Your task to perform on an android device: View the shopping cart on costco.com. Search for rayovac triple a on costco.com, select the first entry, add it to the cart, then select checkout. Image 0: 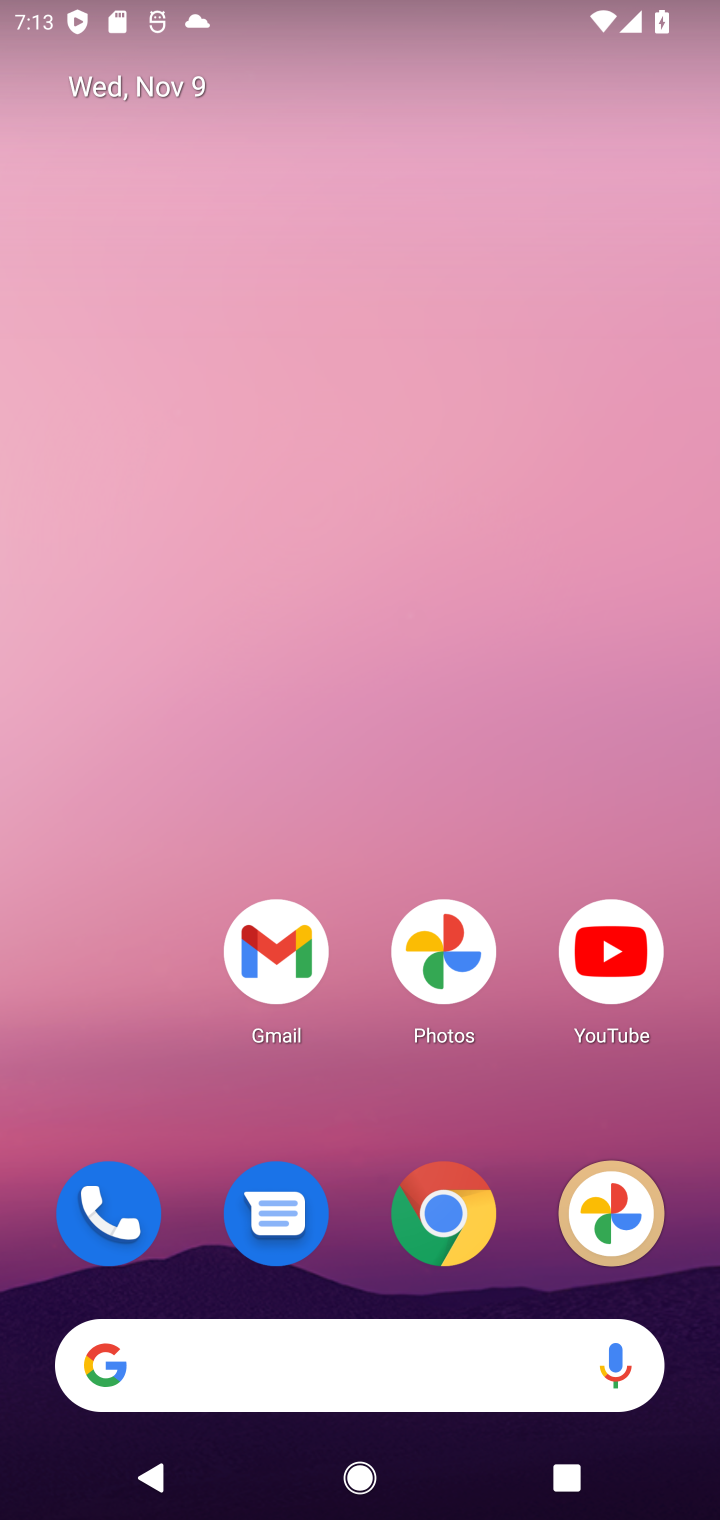
Step 0: click (444, 1241)
Your task to perform on an android device: View the shopping cart on costco.com. Search for rayovac triple a on costco.com, select the first entry, add it to the cart, then select checkout. Image 1: 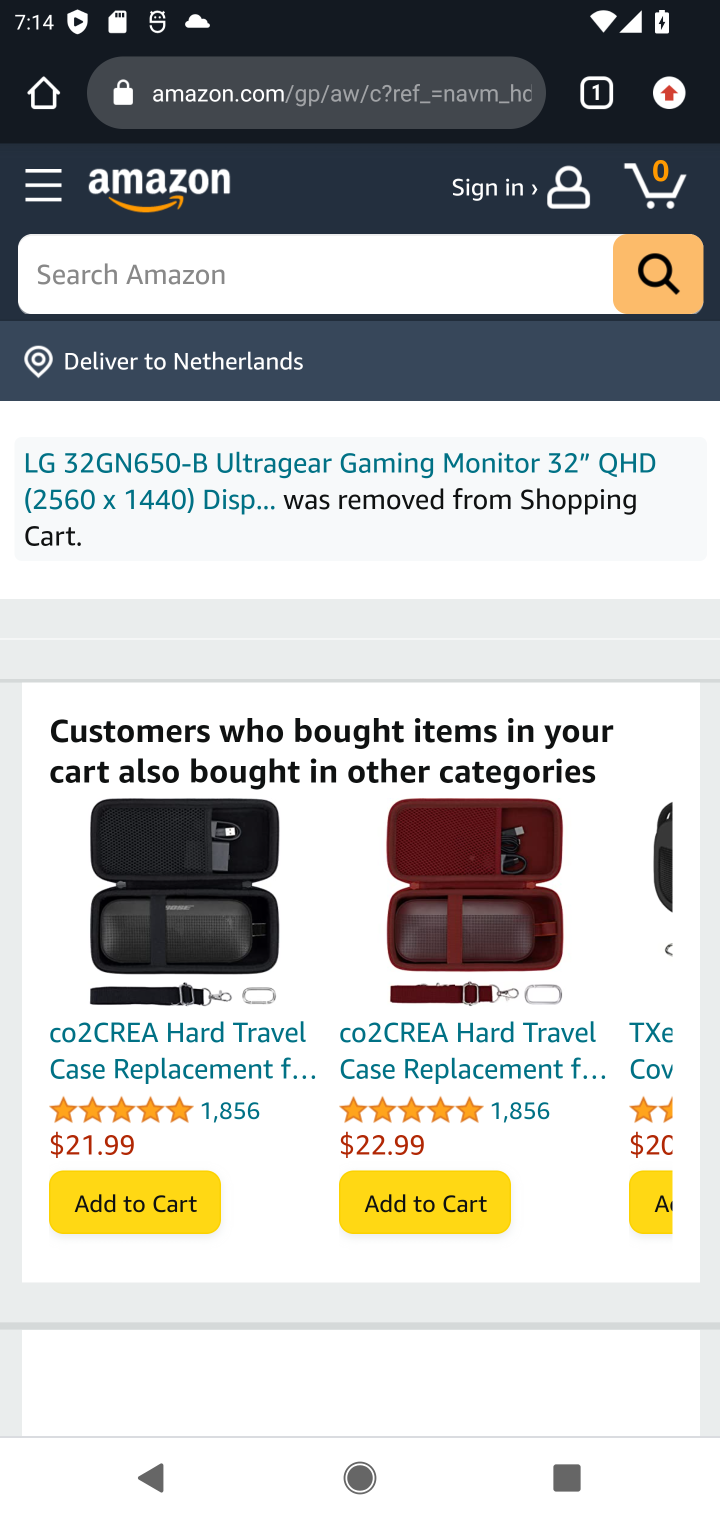
Step 1: click (180, 90)
Your task to perform on an android device: View the shopping cart on costco.com. Search for rayovac triple a on costco.com, select the first entry, add it to the cart, then select checkout. Image 2: 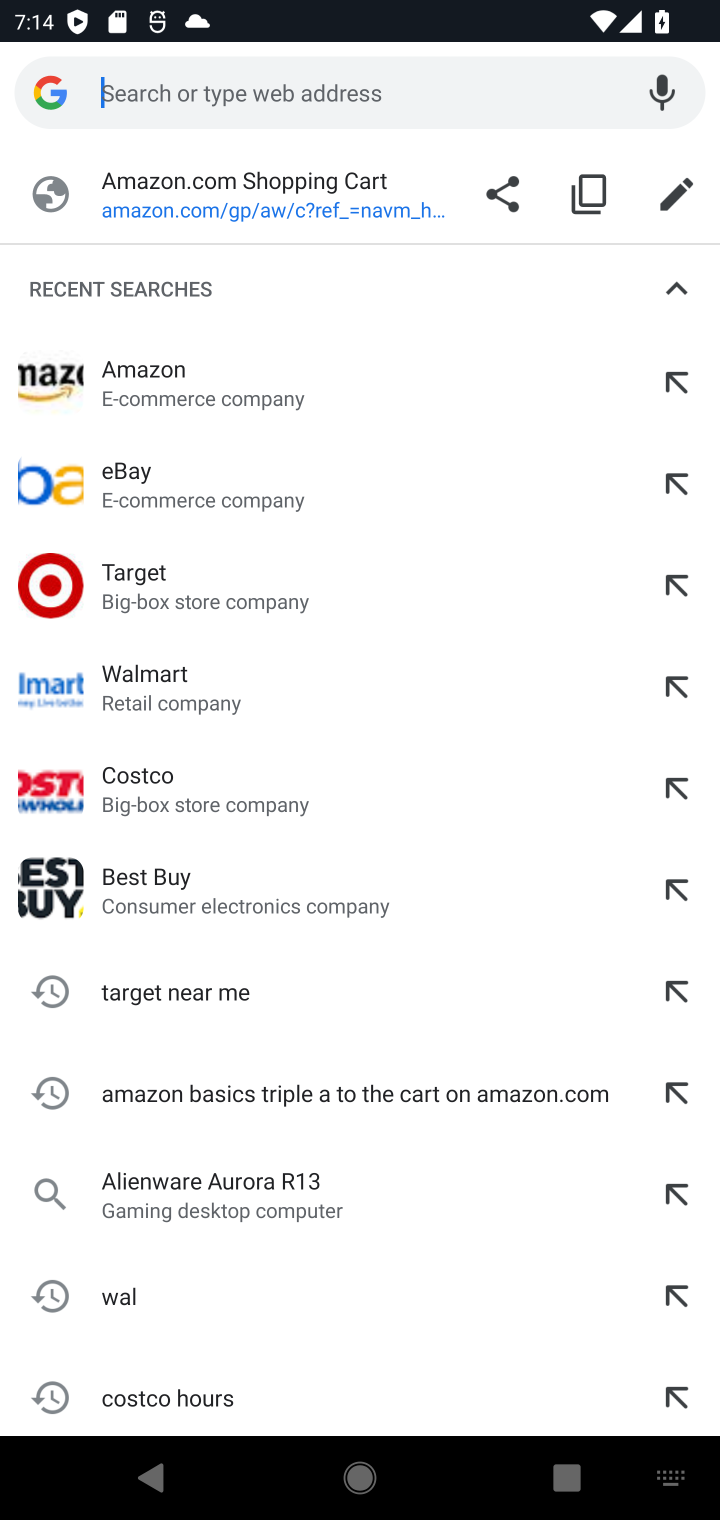
Step 2: type "costco"
Your task to perform on an android device: View the shopping cart on costco.com. Search for rayovac triple a on costco.com, select the first entry, add it to the cart, then select checkout. Image 3: 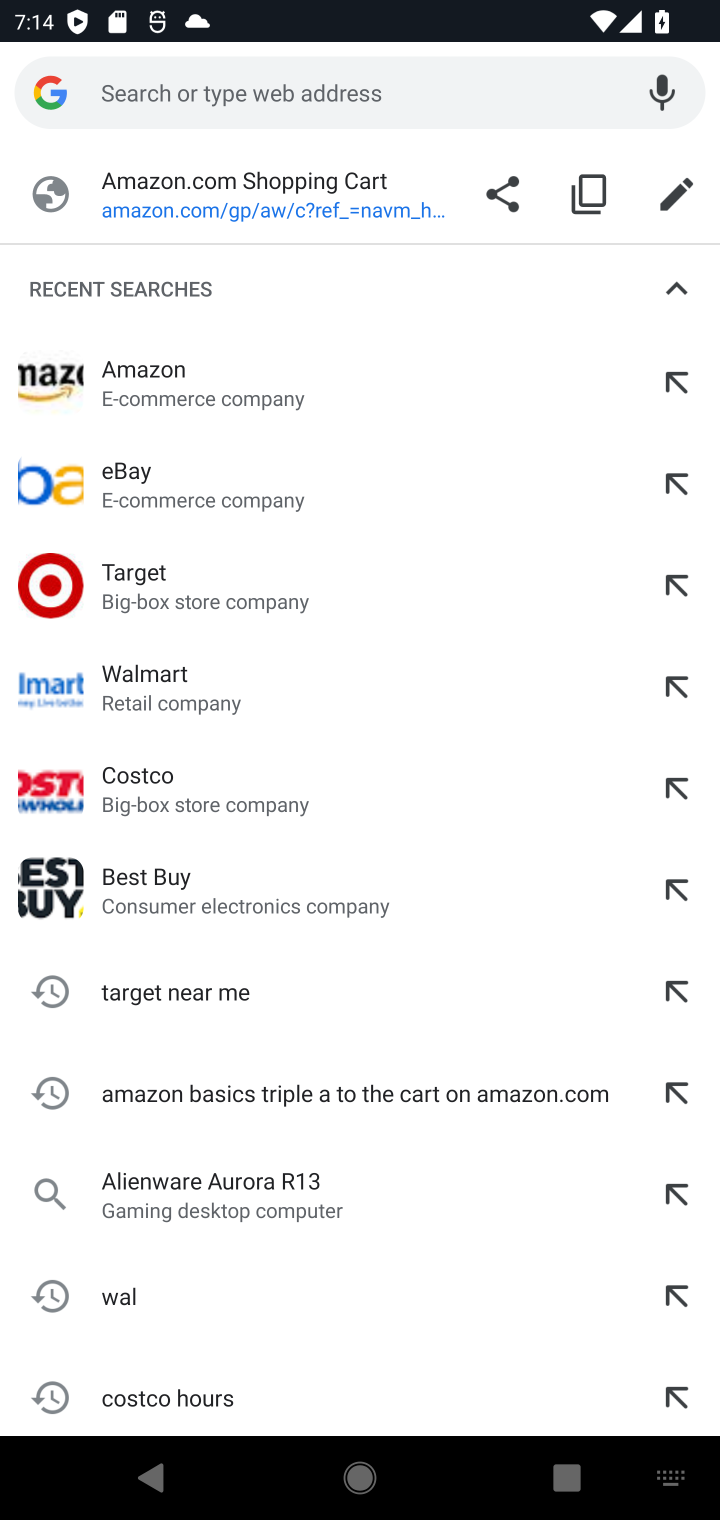
Step 3: click (133, 792)
Your task to perform on an android device: View the shopping cart on costco.com. Search for rayovac triple a on costco.com, select the first entry, add it to the cart, then select checkout. Image 4: 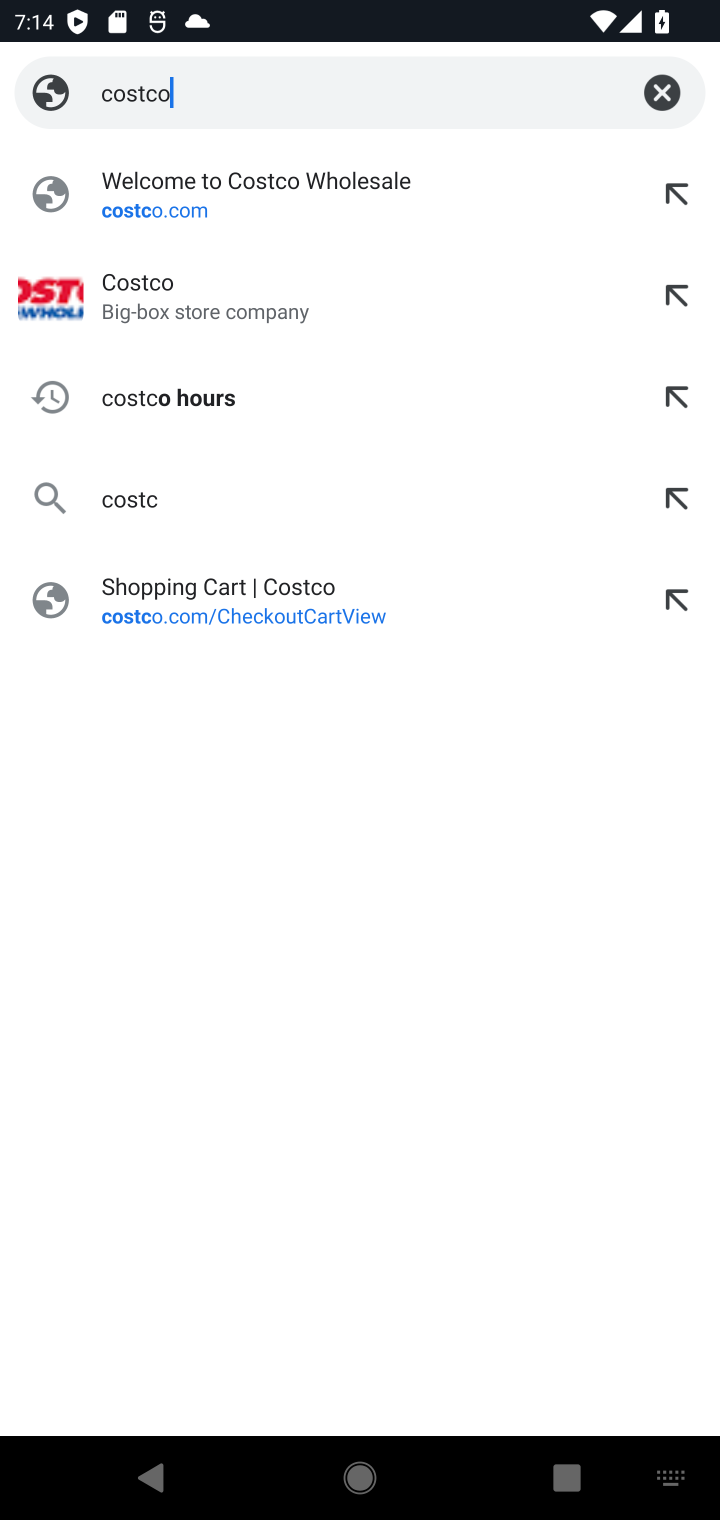
Step 4: click (132, 276)
Your task to perform on an android device: View the shopping cart on costco.com. Search for rayovac triple a on costco.com, select the first entry, add it to the cart, then select checkout. Image 5: 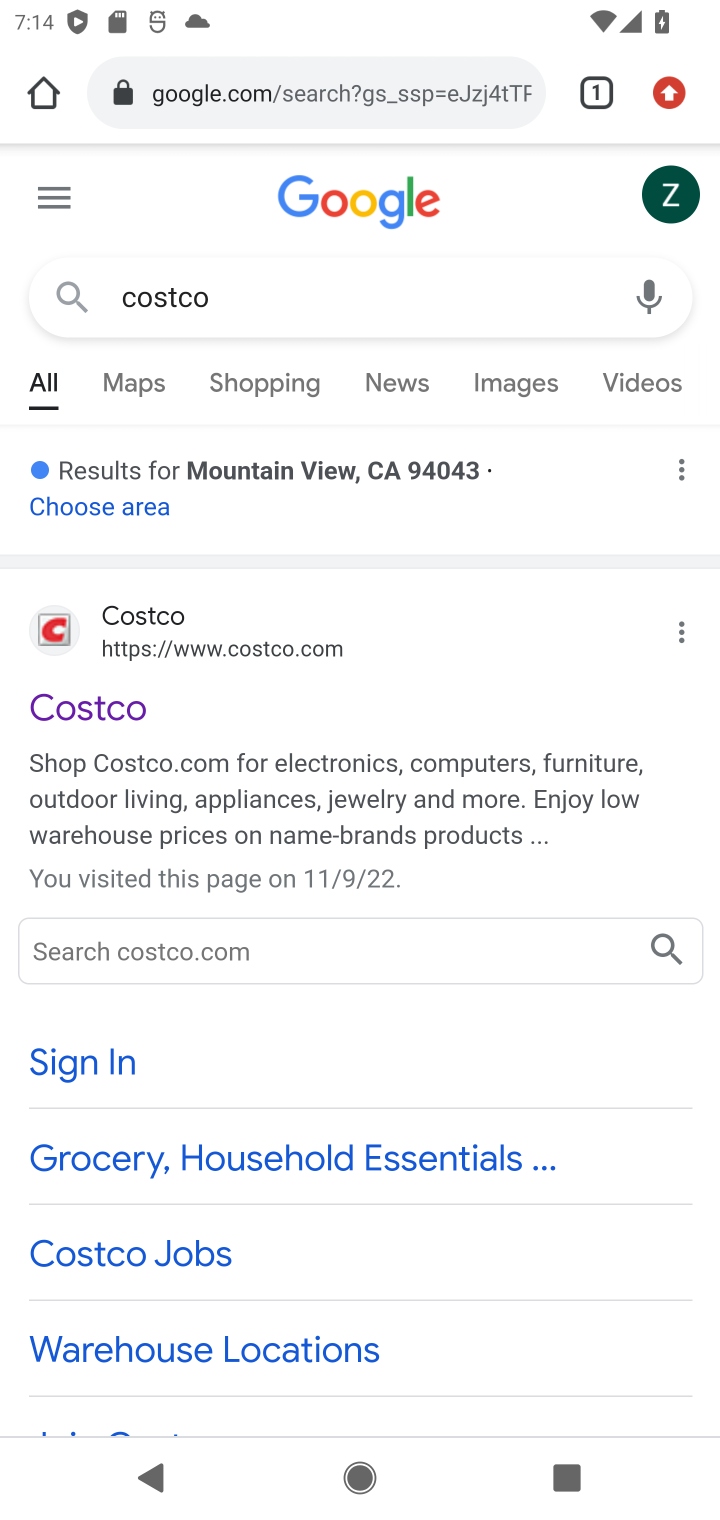
Step 5: click (98, 717)
Your task to perform on an android device: View the shopping cart on costco.com. Search for rayovac triple a on costco.com, select the first entry, add it to the cart, then select checkout. Image 6: 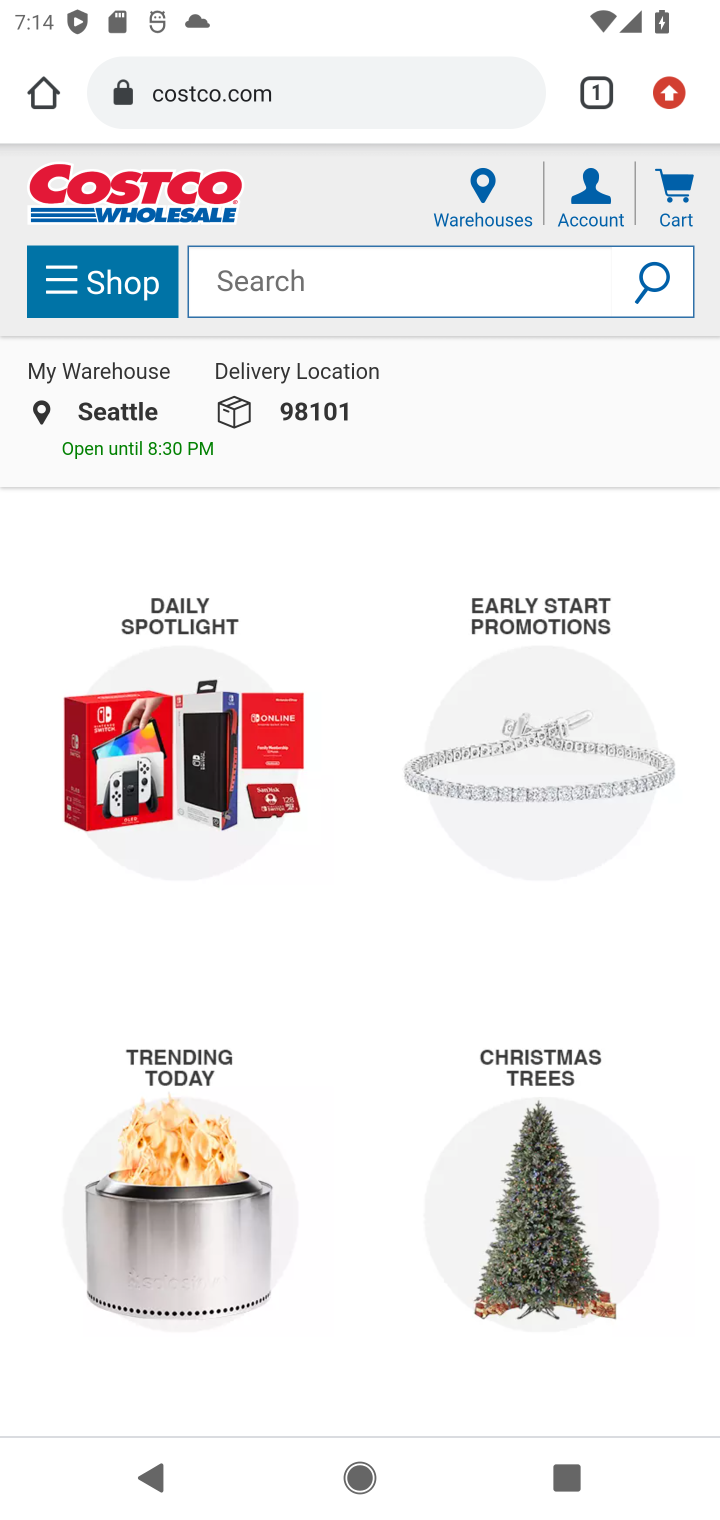
Step 6: click (348, 294)
Your task to perform on an android device: View the shopping cart on costco.com. Search for rayovac triple a on costco.com, select the first entry, add it to the cart, then select checkout. Image 7: 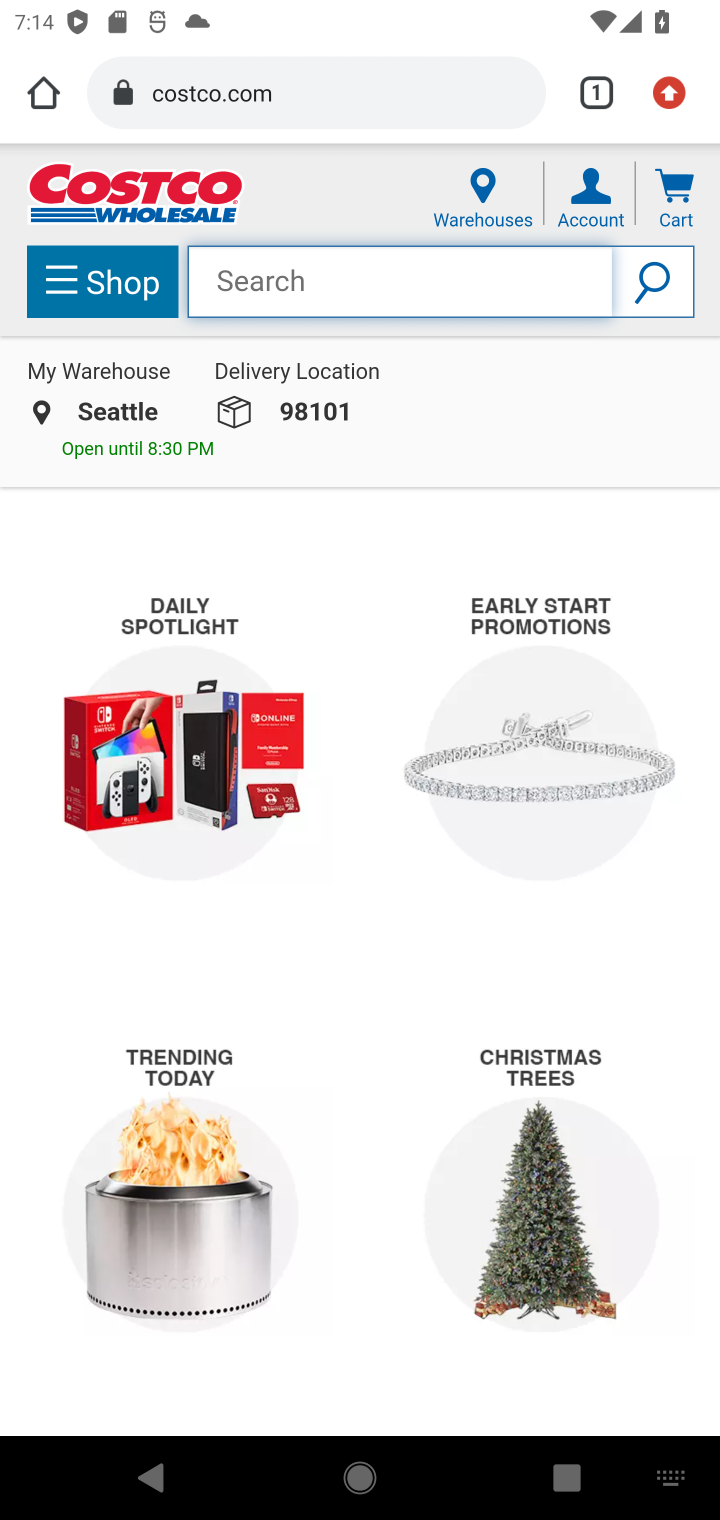
Step 7: type "rayovac triple"
Your task to perform on an android device: View the shopping cart on costco.com. Search for rayovac triple a on costco.com, select the first entry, add it to the cart, then select checkout. Image 8: 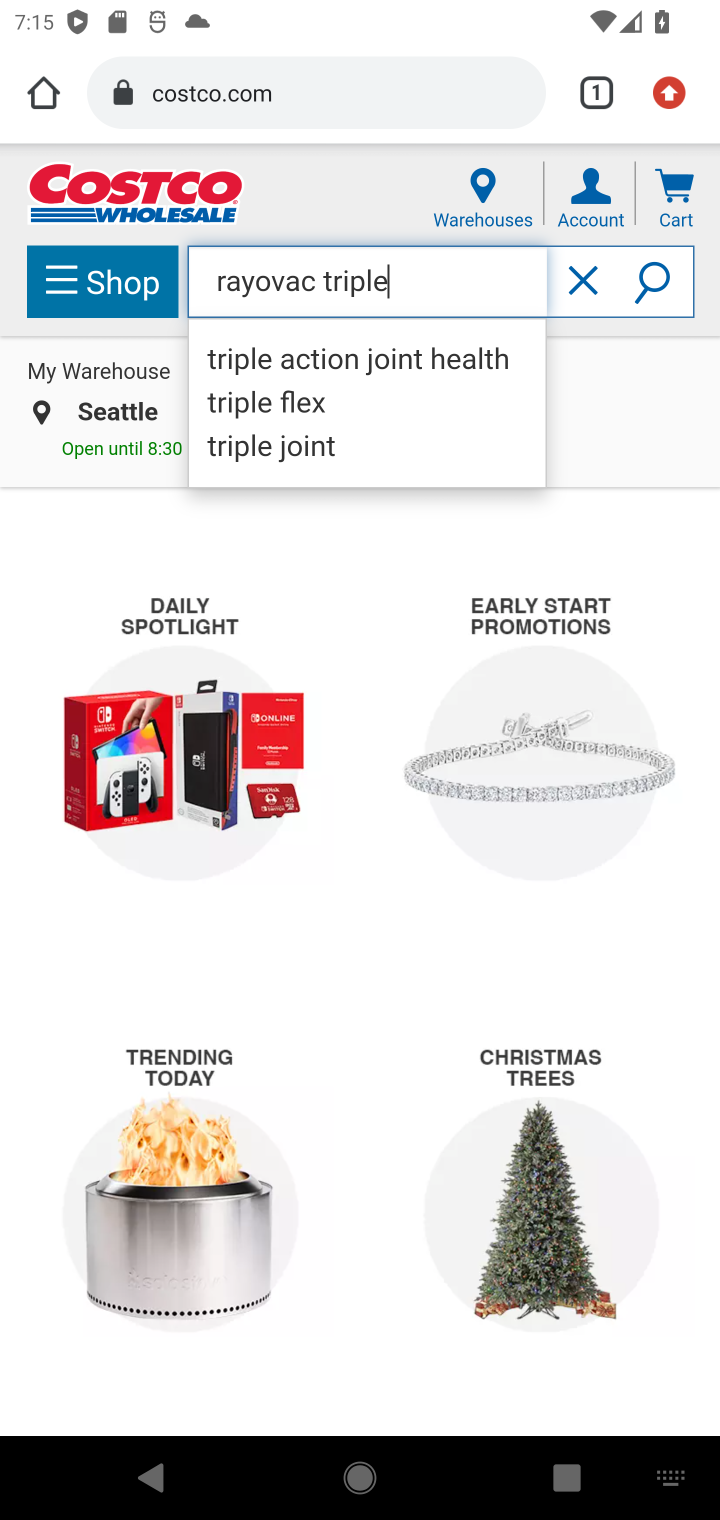
Step 8: click (309, 353)
Your task to perform on an android device: View the shopping cart on costco.com. Search for rayovac triple a on costco.com, select the first entry, add it to the cart, then select checkout. Image 9: 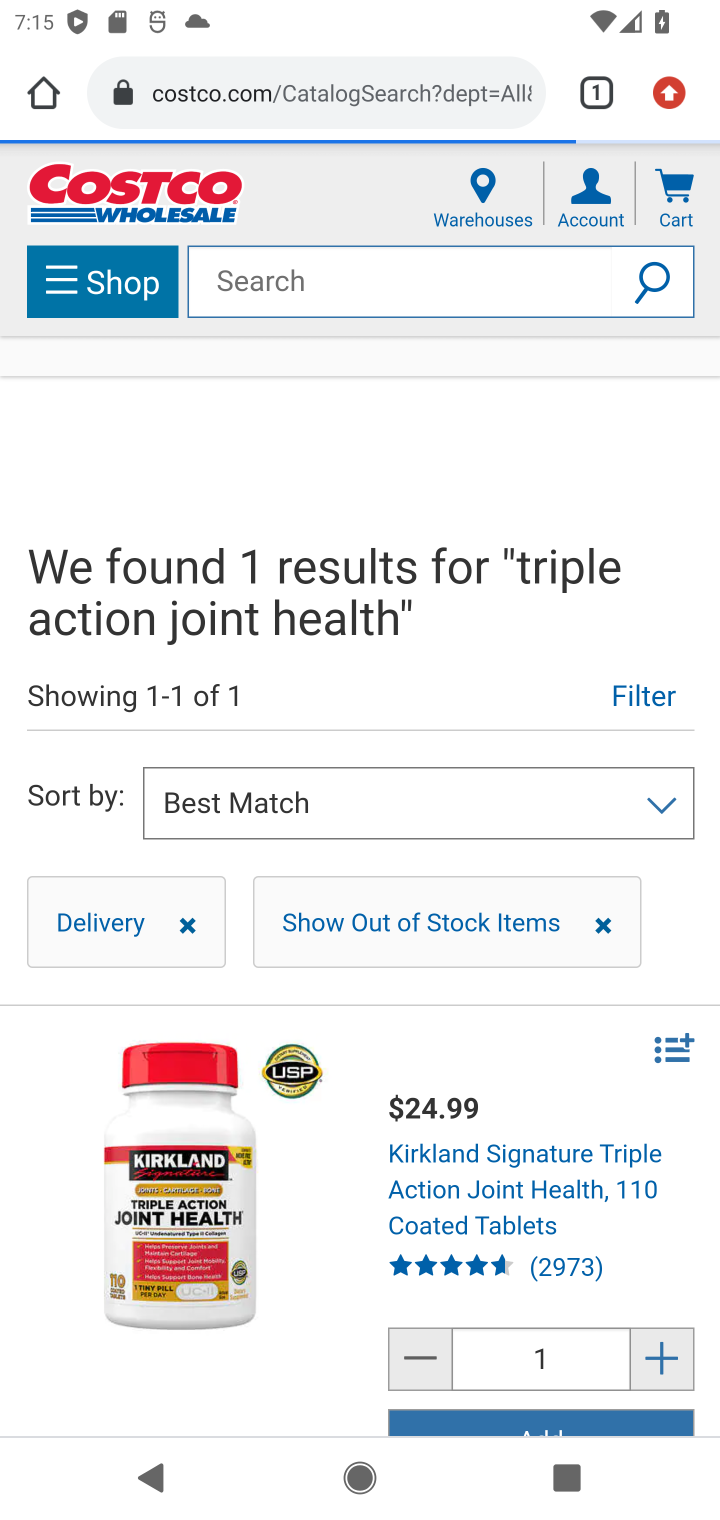
Step 9: drag from (378, 1240) to (328, 532)
Your task to perform on an android device: View the shopping cart on costco.com. Search for rayovac triple a on costco.com, select the first entry, add it to the cart, then select checkout. Image 10: 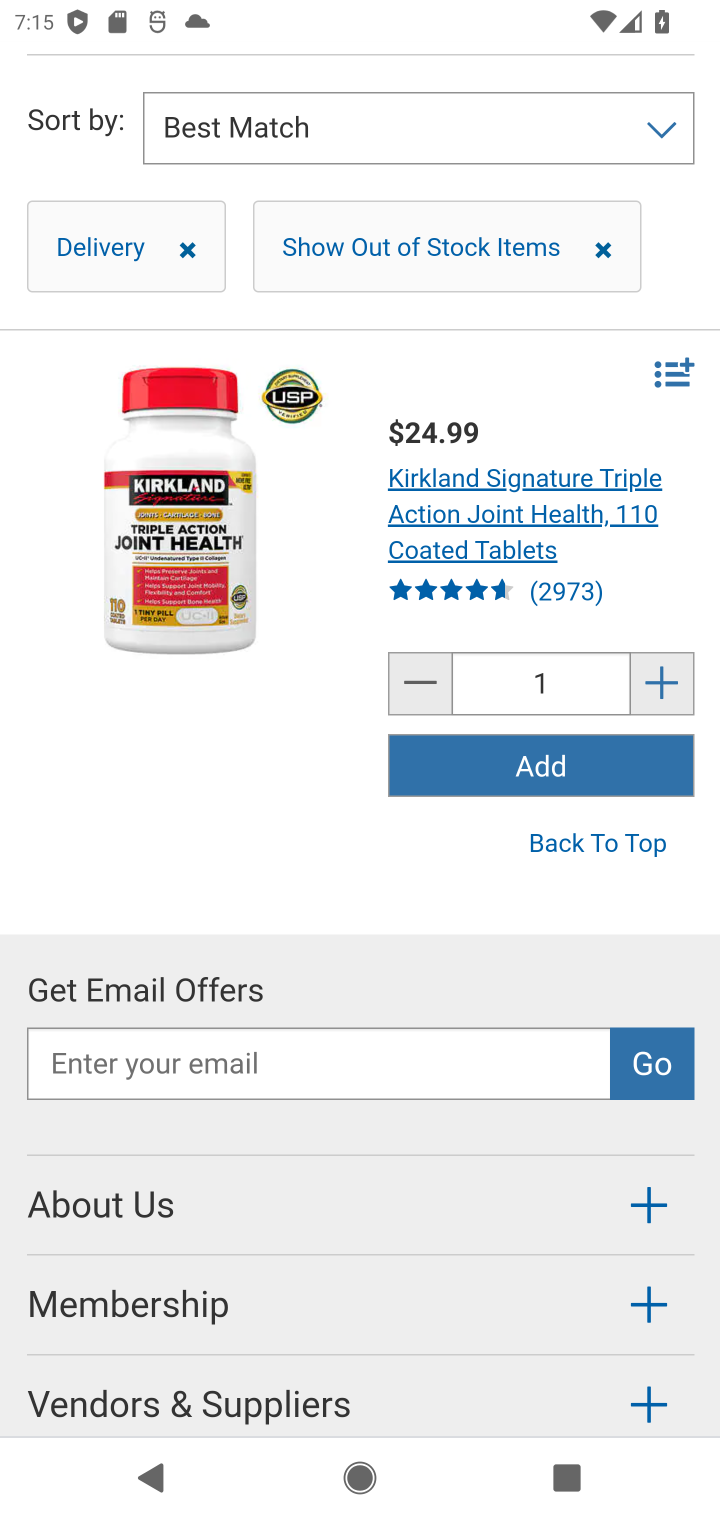
Step 10: drag from (308, 572) to (331, 1169)
Your task to perform on an android device: View the shopping cart on costco.com. Search for rayovac triple a on costco.com, select the first entry, add it to the cart, then select checkout. Image 11: 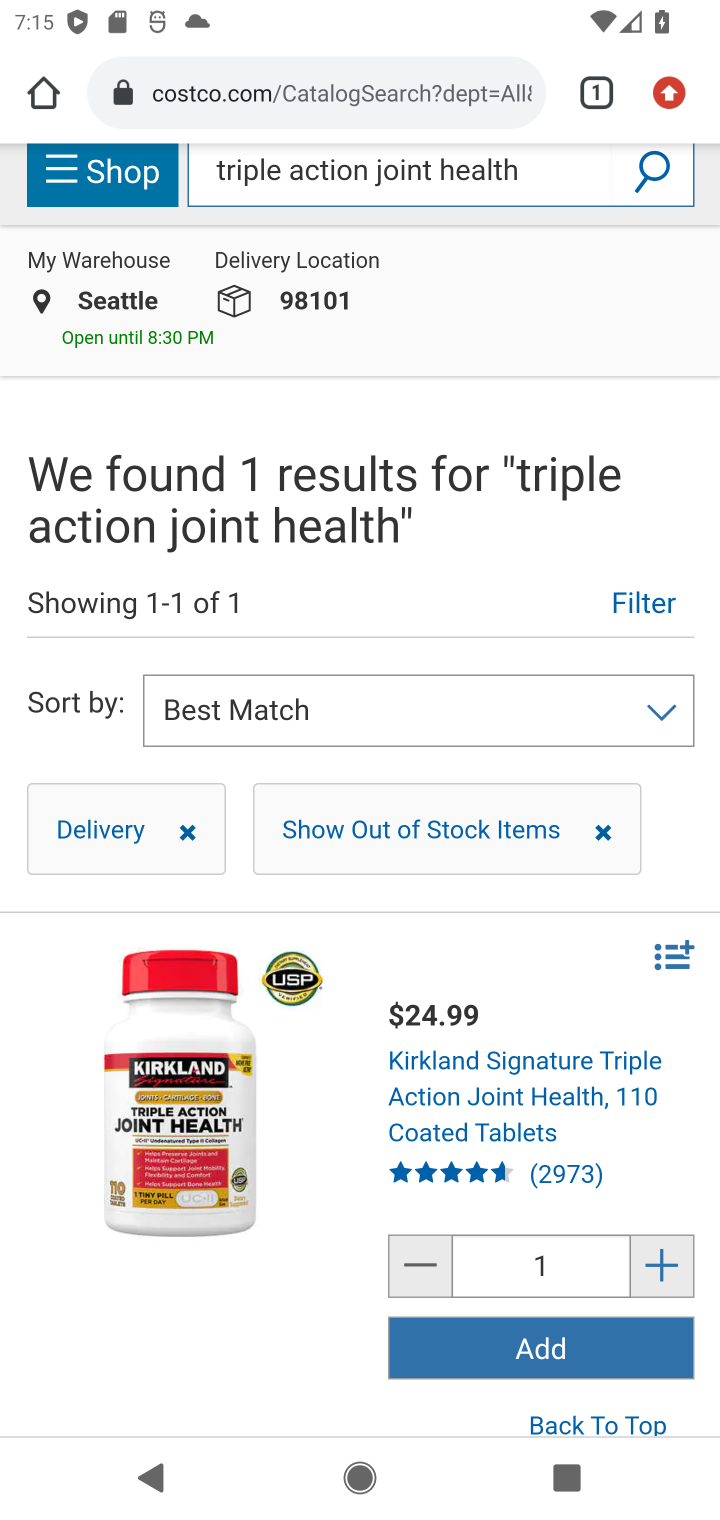
Step 11: click (361, 155)
Your task to perform on an android device: View the shopping cart on costco.com. Search for rayovac triple a on costco.com, select the first entry, add it to the cart, then select checkout. Image 12: 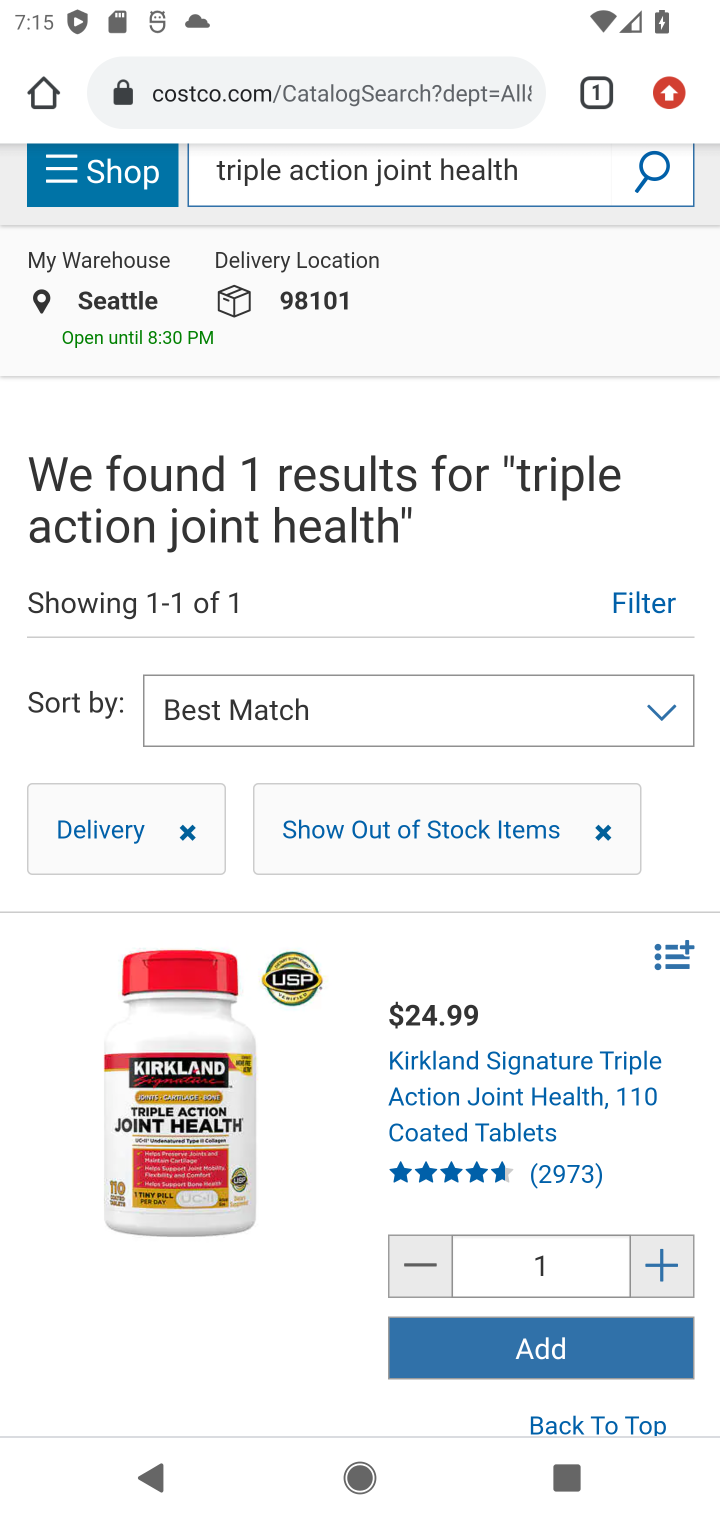
Step 12: click (531, 154)
Your task to perform on an android device: View the shopping cart on costco.com. Search for rayovac triple a on costco.com, select the first entry, add it to the cart, then select checkout. Image 13: 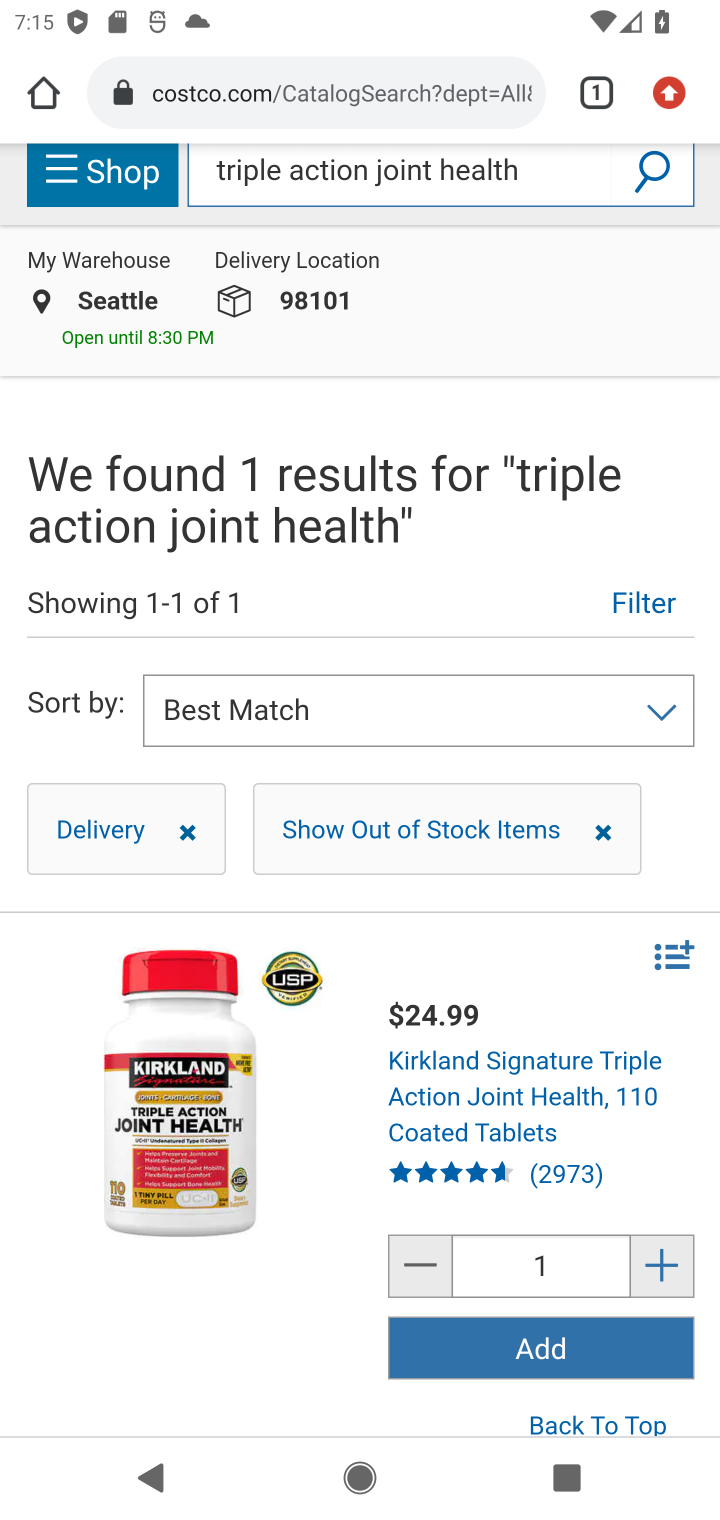
Step 13: drag from (490, 626) to (494, 220)
Your task to perform on an android device: View the shopping cart on costco.com. Search for rayovac triple a on costco.com, select the first entry, add it to the cart, then select checkout. Image 14: 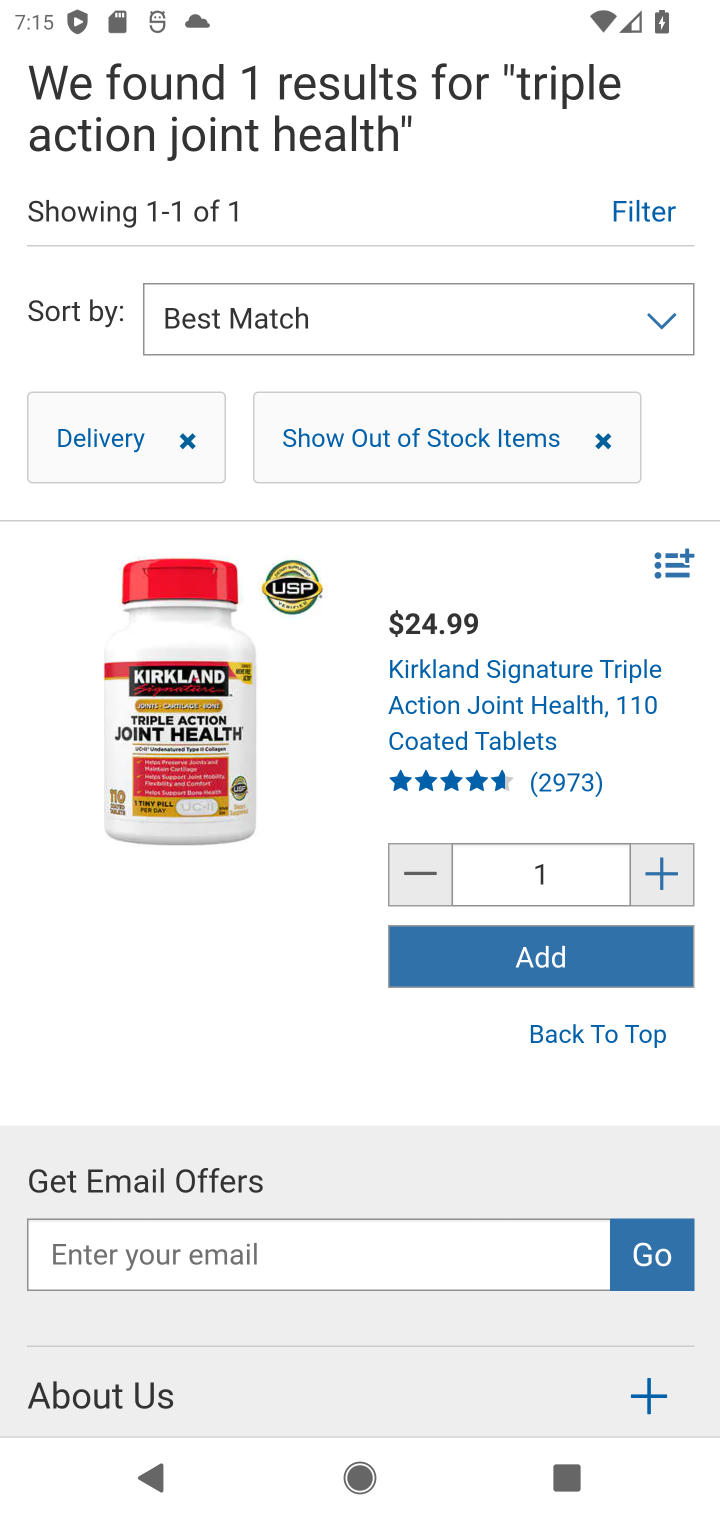
Step 14: click (229, 312)
Your task to perform on an android device: View the shopping cart on costco.com. Search for rayovac triple a on costco.com, select the first entry, add it to the cart, then select checkout. Image 15: 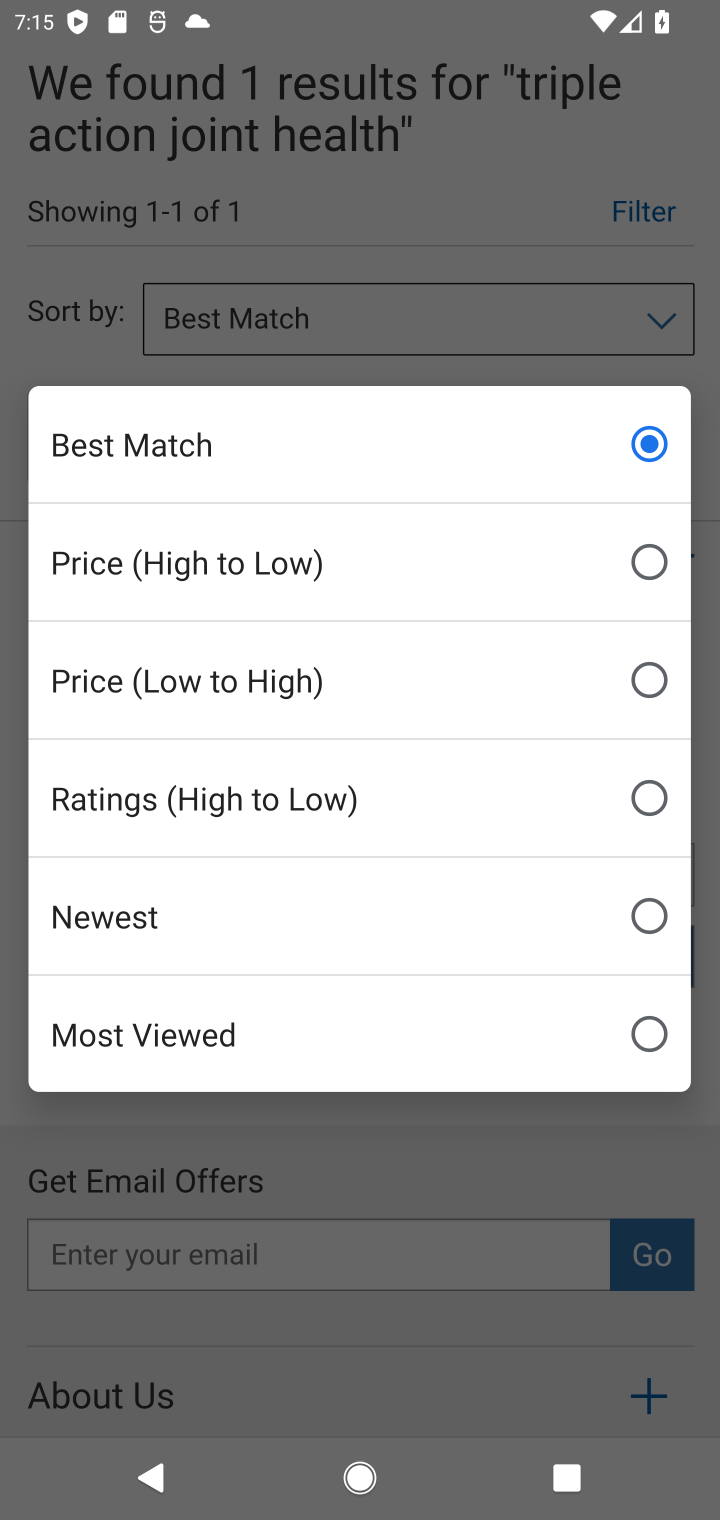
Step 15: click (276, 328)
Your task to perform on an android device: View the shopping cart on costco.com. Search for rayovac triple a on costco.com, select the first entry, add it to the cart, then select checkout. Image 16: 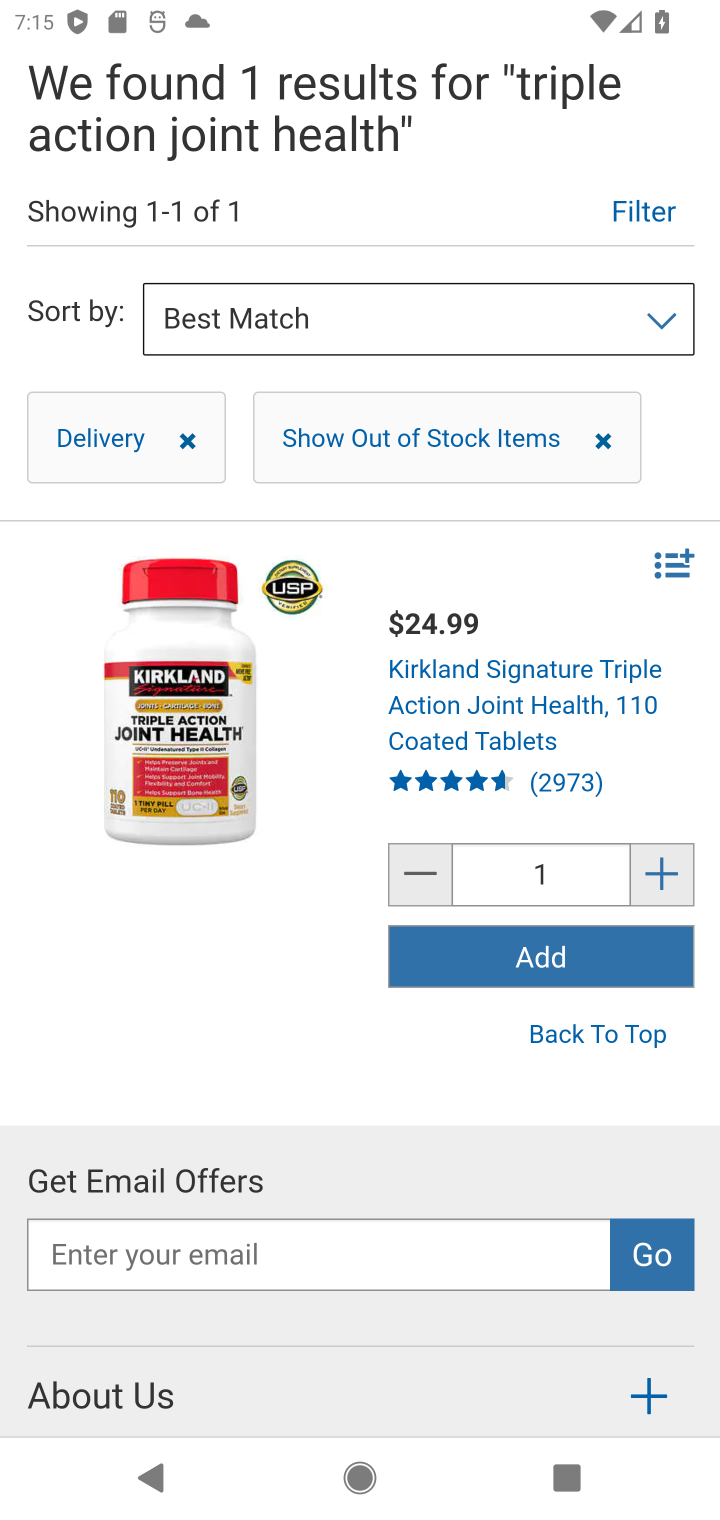
Step 16: drag from (501, 184) to (540, 978)
Your task to perform on an android device: View the shopping cart on costco.com. Search for rayovac triple a on costco.com, select the first entry, add it to the cart, then select checkout. Image 17: 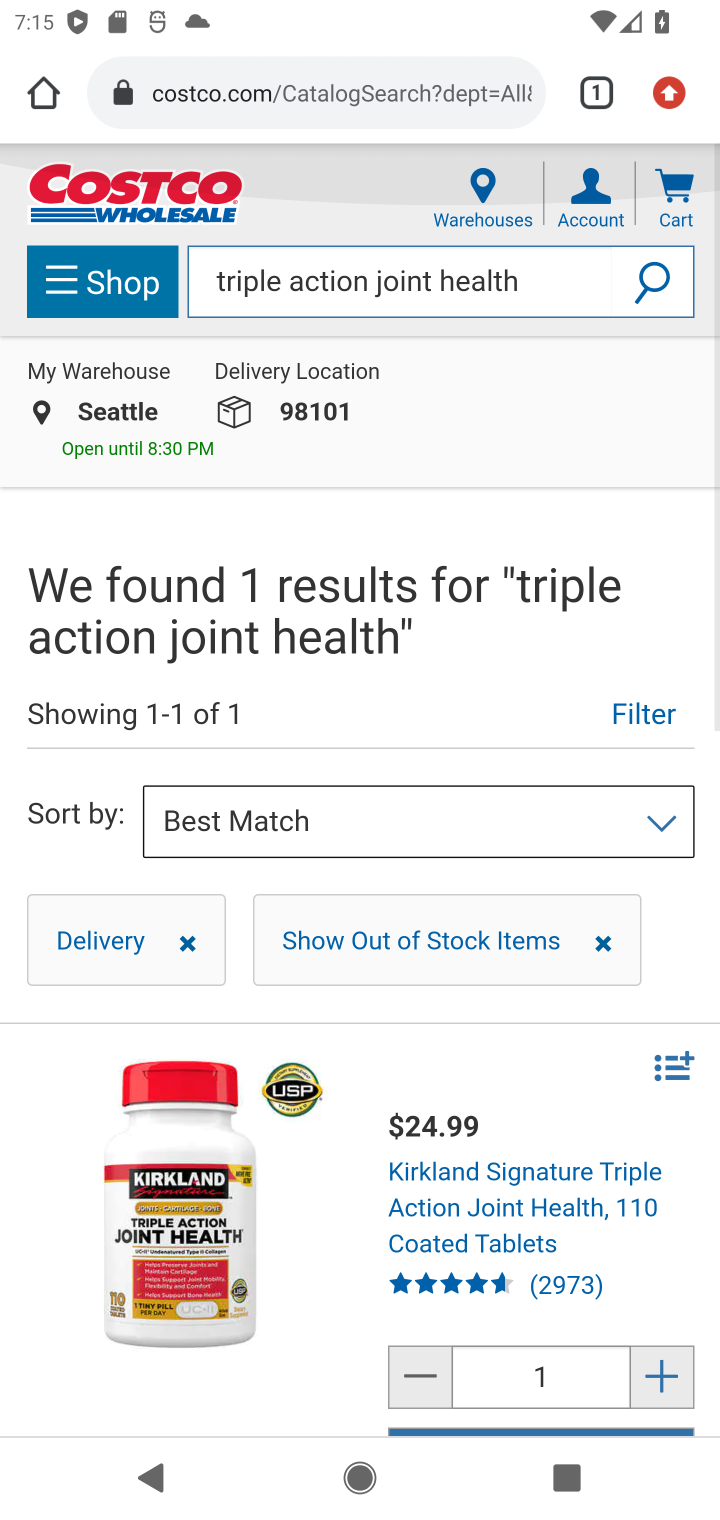
Step 17: drag from (245, 411) to (376, 954)
Your task to perform on an android device: View the shopping cart on costco.com. Search for rayovac triple a on costco.com, select the first entry, add it to the cart, then select checkout. Image 18: 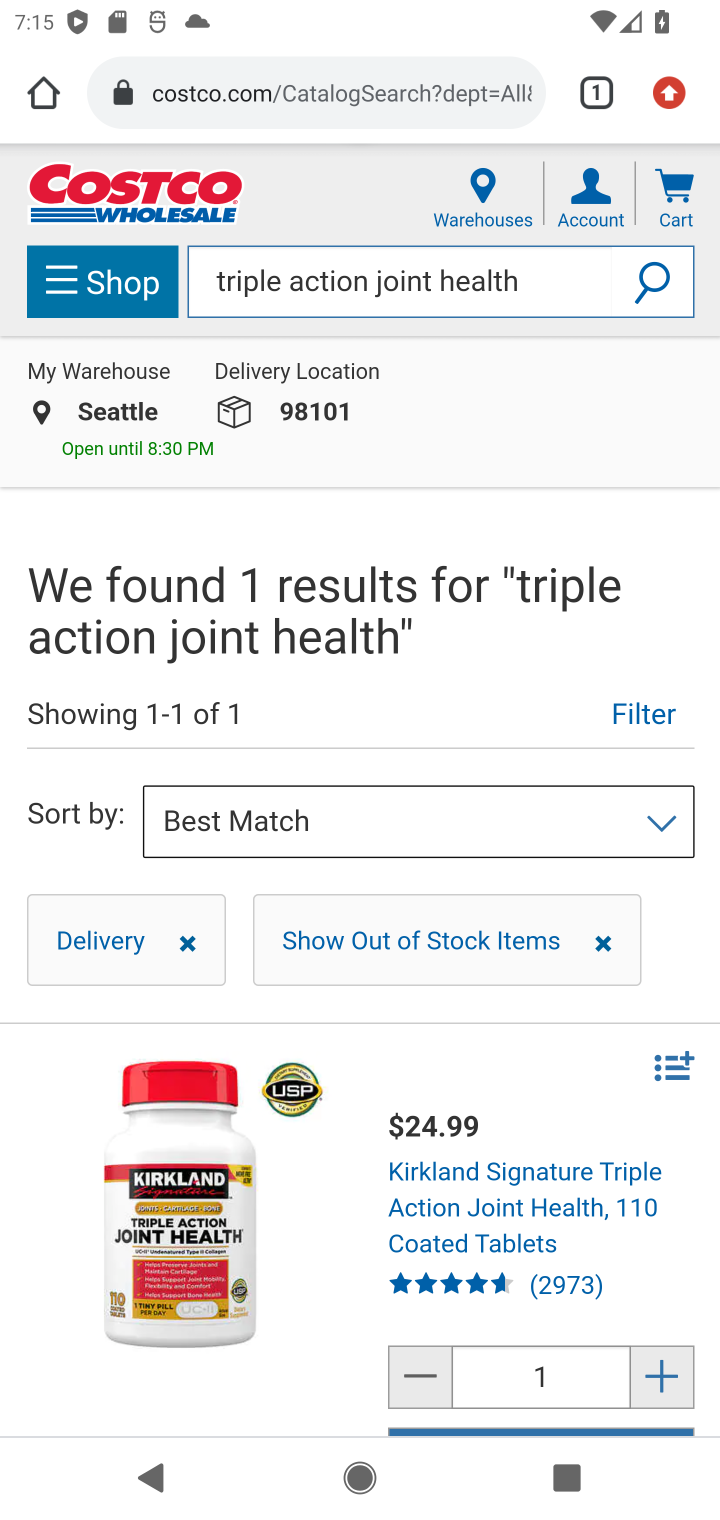
Step 18: press back button
Your task to perform on an android device: View the shopping cart on costco.com. Search for rayovac triple a on costco.com, select the first entry, add it to the cart, then select checkout. Image 19: 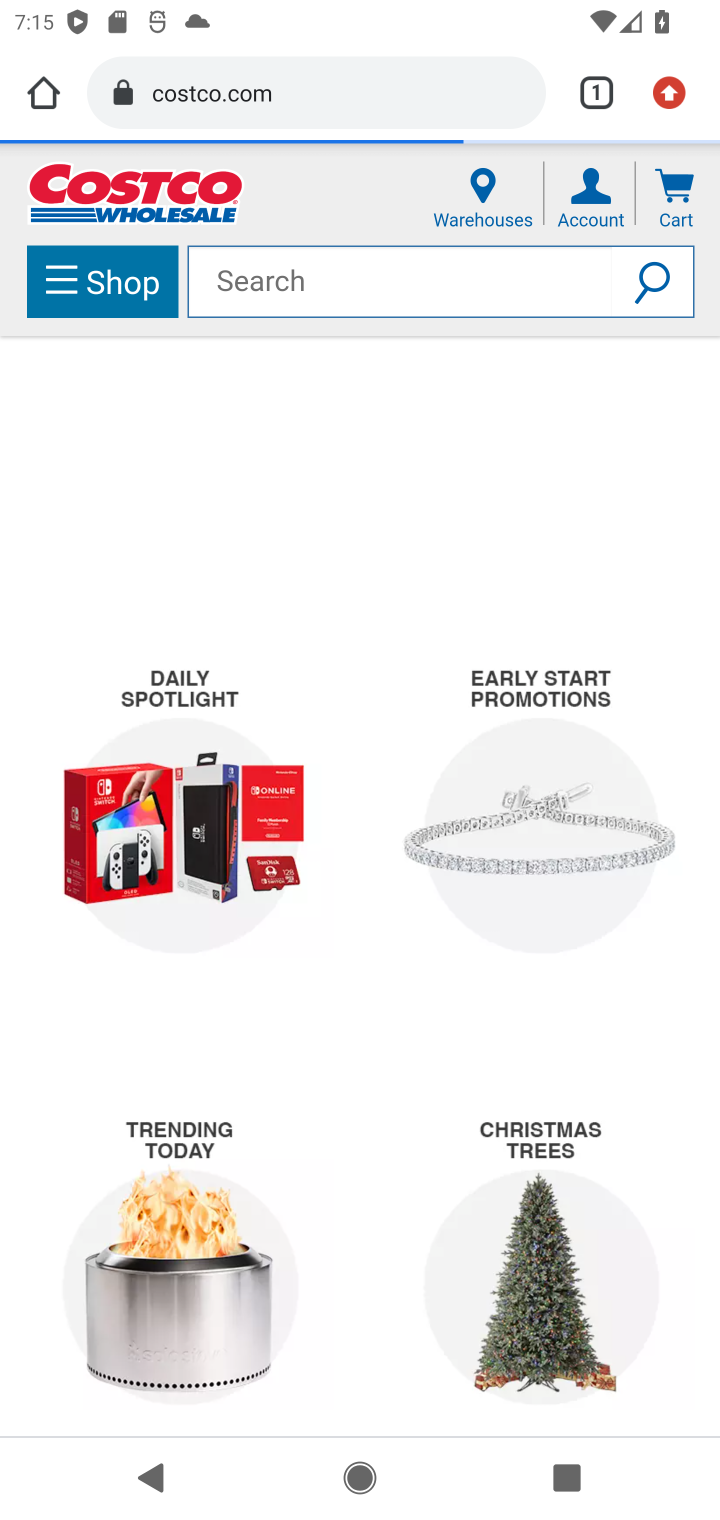
Step 19: click (386, 276)
Your task to perform on an android device: View the shopping cart on costco.com. Search for rayovac triple a on costco.com, select the first entry, add it to the cart, then select checkout. Image 20: 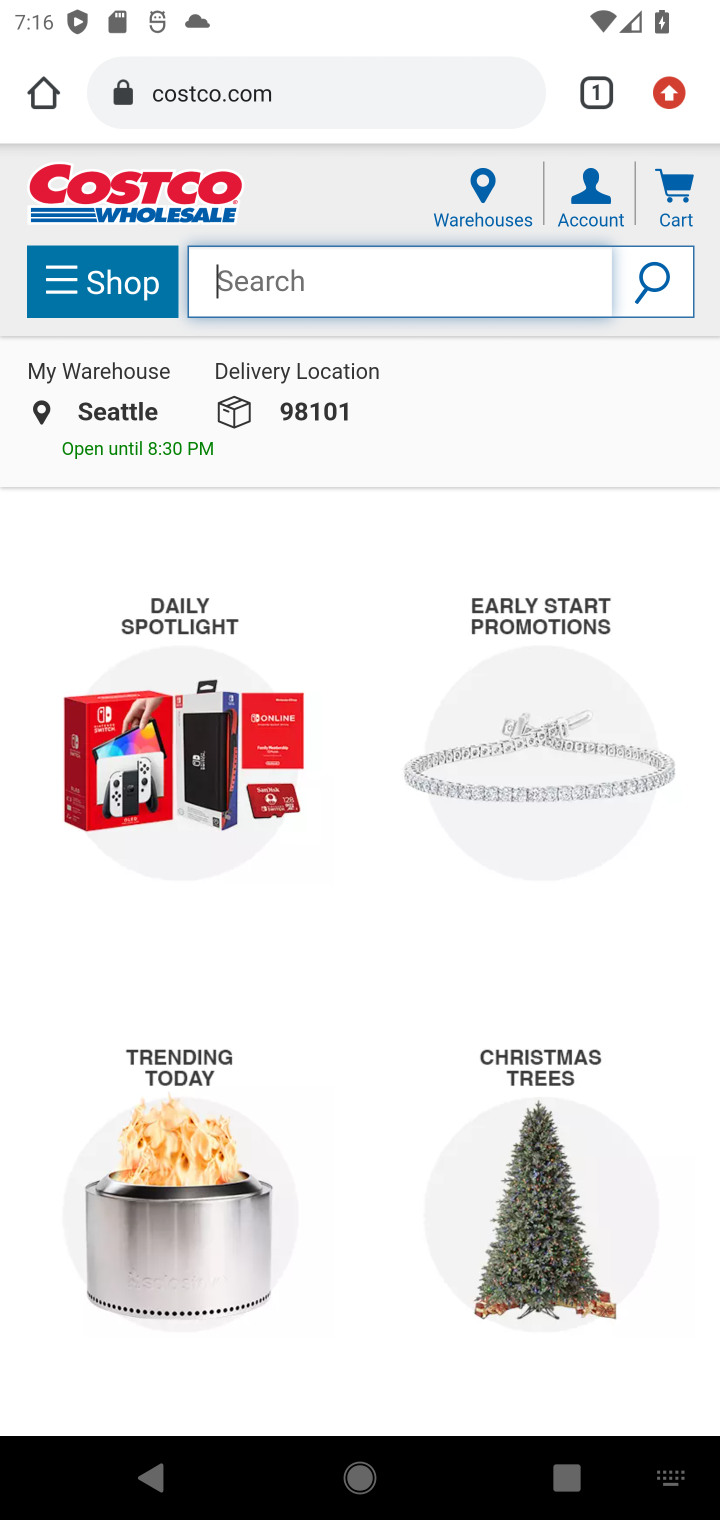
Step 20: type "rayovac triple"
Your task to perform on an android device: View the shopping cart on costco.com. Search for rayovac triple a on costco.com, select the first entry, add it to the cart, then select checkout. Image 21: 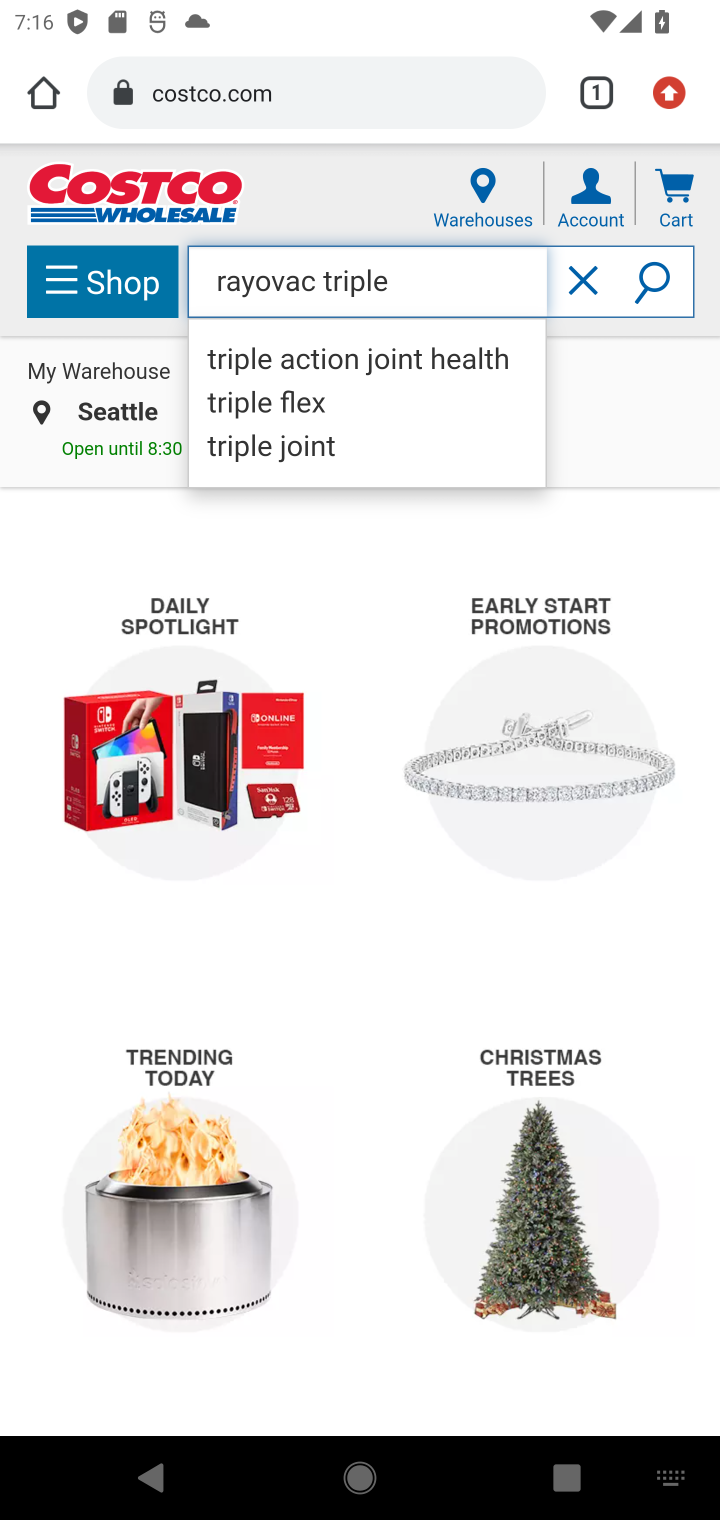
Step 21: click (290, 365)
Your task to perform on an android device: View the shopping cart on costco.com. Search for rayovac triple a on costco.com, select the first entry, add it to the cart, then select checkout. Image 22: 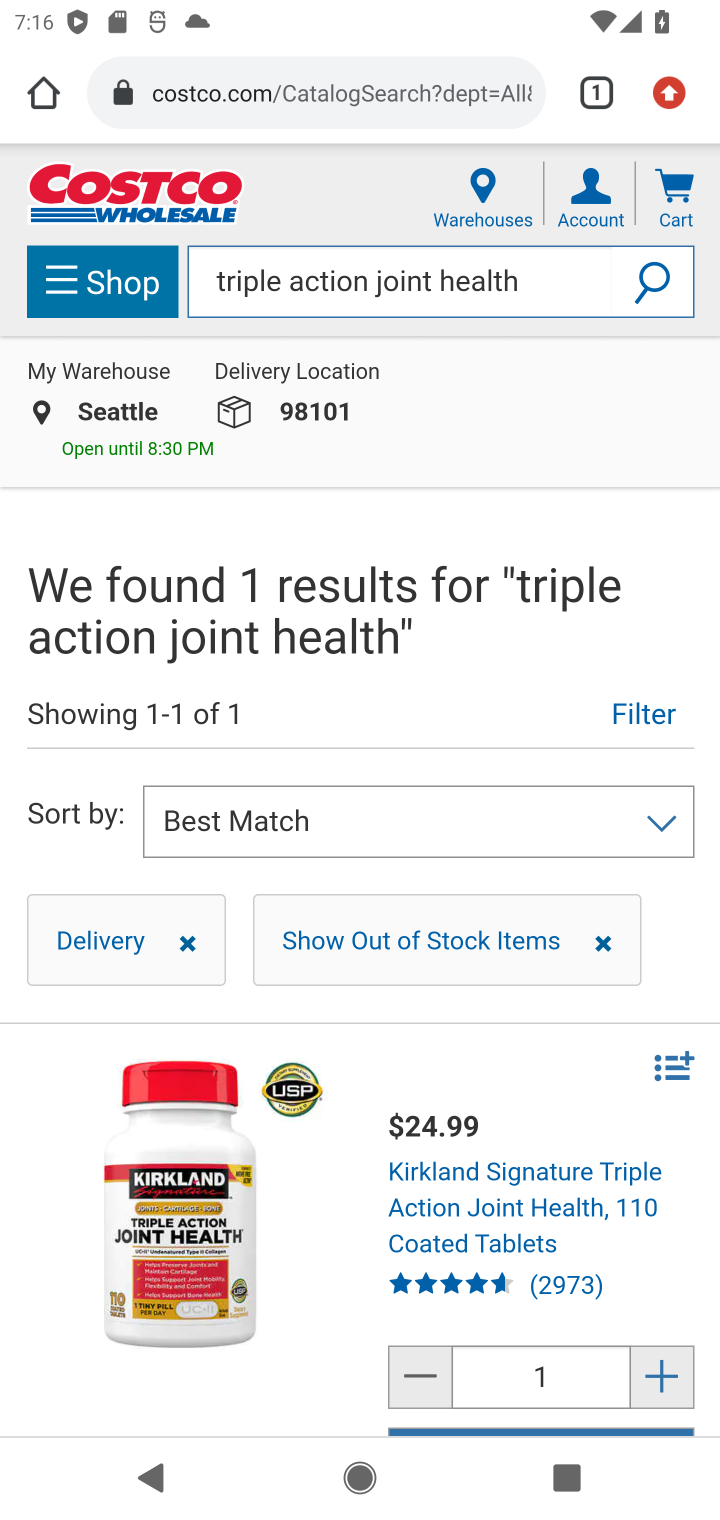
Step 22: task complete